Your task to perform on an android device: Open Yahoo.com Image 0: 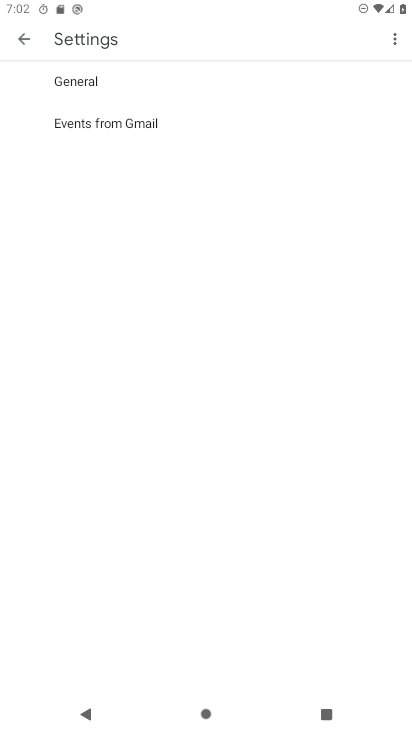
Step 0: press home button
Your task to perform on an android device: Open Yahoo.com Image 1: 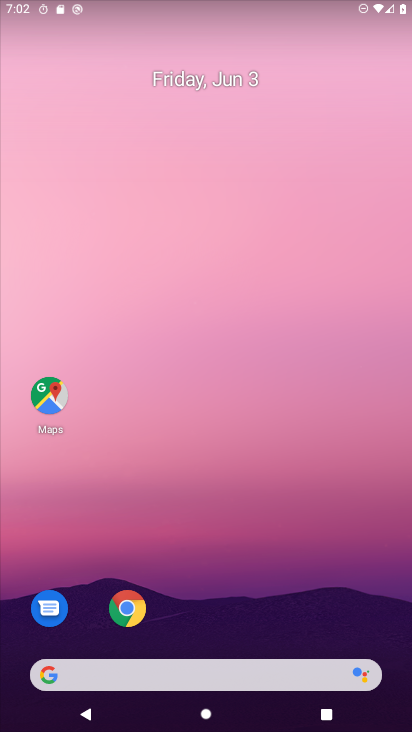
Step 1: click (123, 601)
Your task to perform on an android device: Open Yahoo.com Image 2: 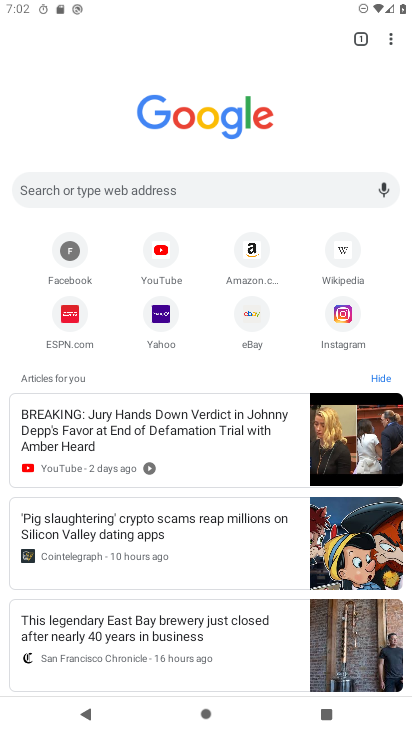
Step 2: click (167, 305)
Your task to perform on an android device: Open Yahoo.com Image 3: 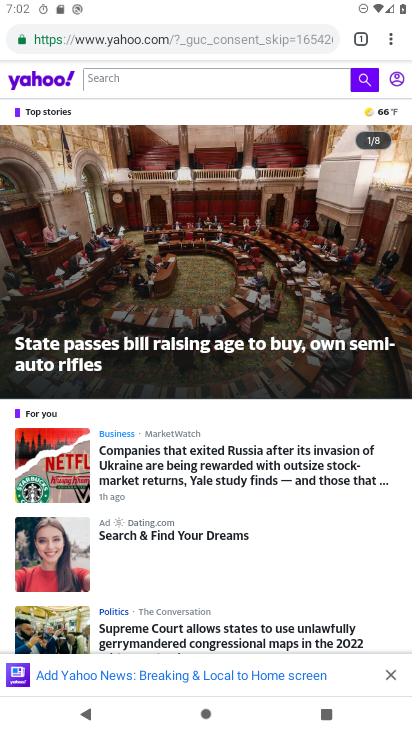
Step 3: task complete